Your task to perform on an android device: turn on location history Image 0: 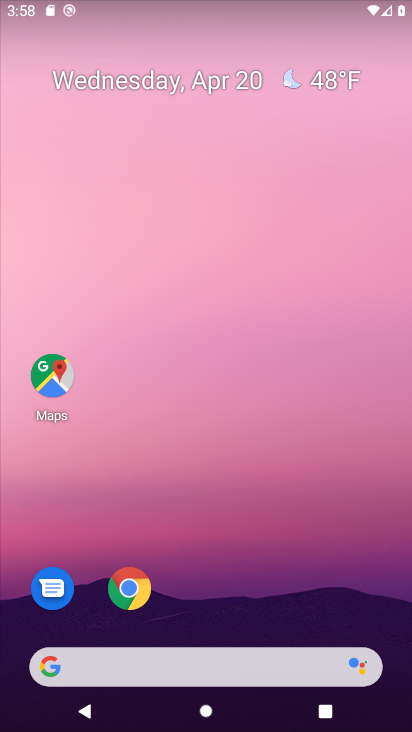
Step 0: drag from (329, 611) to (307, 211)
Your task to perform on an android device: turn on location history Image 1: 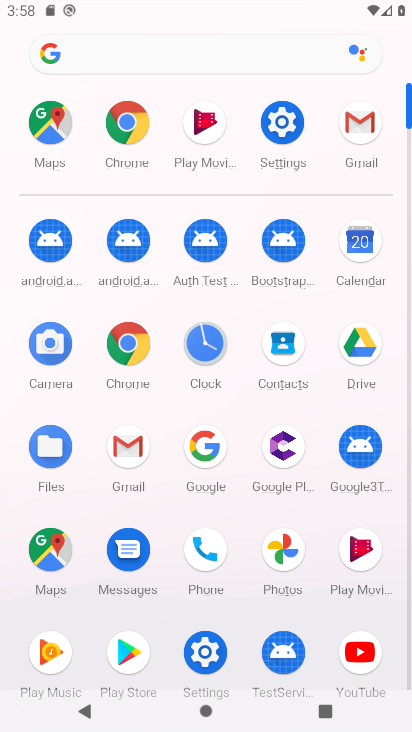
Step 1: click (282, 133)
Your task to perform on an android device: turn on location history Image 2: 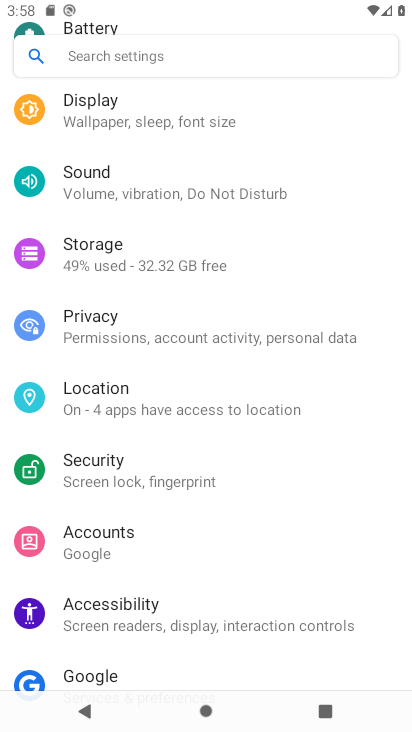
Step 2: drag from (365, 257) to (349, 383)
Your task to perform on an android device: turn on location history Image 3: 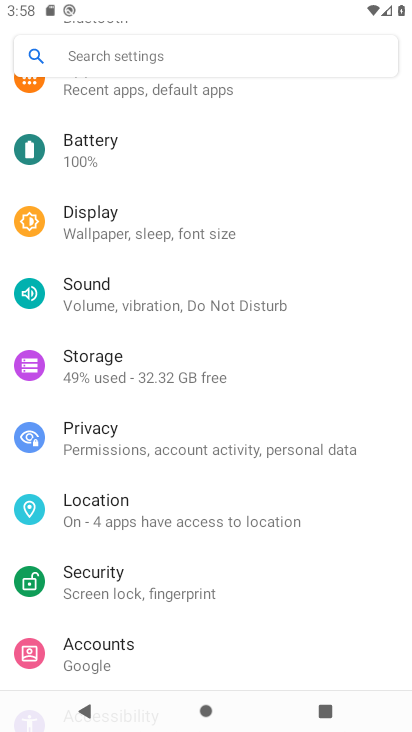
Step 3: drag from (357, 242) to (358, 371)
Your task to perform on an android device: turn on location history Image 4: 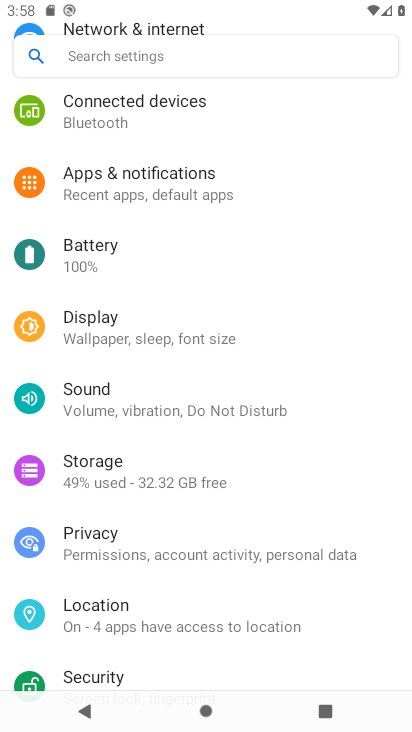
Step 4: drag from (348, 234) to (339, 368)
Your task to perform on an android device: turn on location history Image 5: 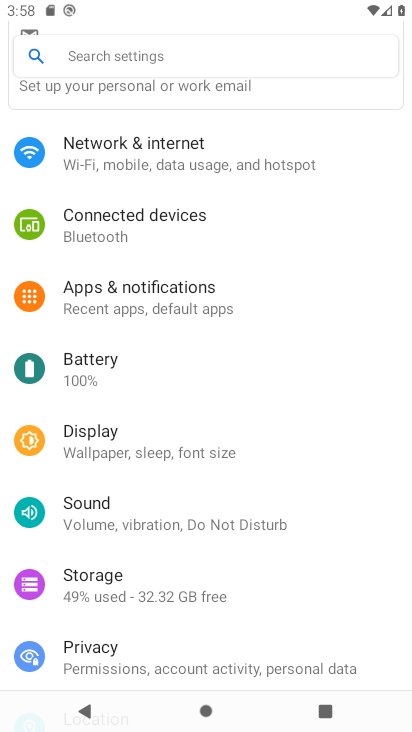
Step 5: drag from (348, 240) to (333, 435)
Your task to perform on an android device: turn on location history Image 6: 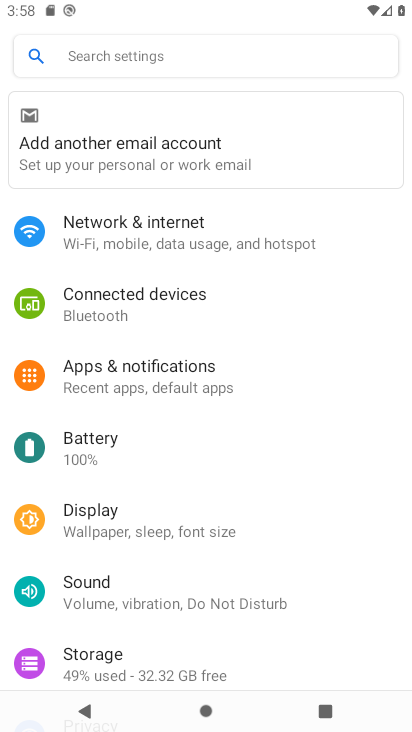
Step 6: drag from (332, 546) to (367, 408)
Your task to perform on an android device: turn on location history Image 7: 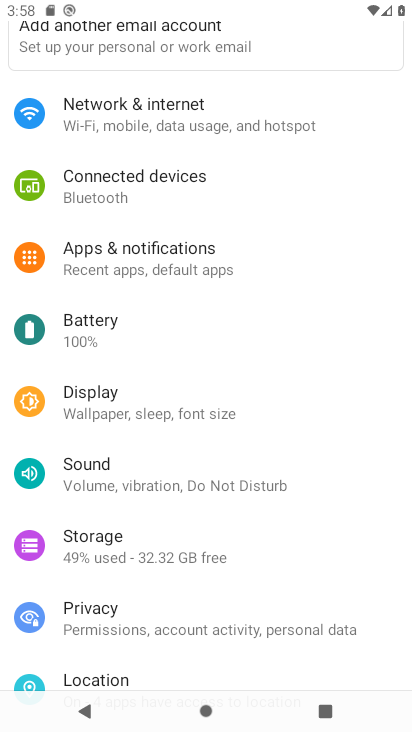
Step 7: drag from (342, 539) to (352, 377)
Your task to perform on an android device: turn on location history Image 8: 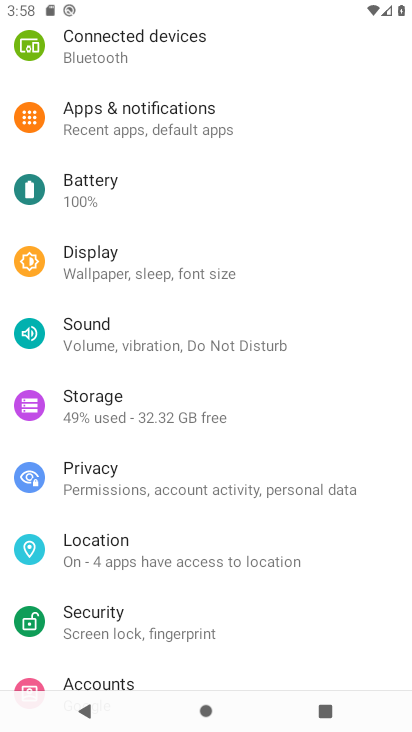
Step 8: drag from (331, 569) to (326, 425)
Your task to perform on an android device: turn on location history Image 9: 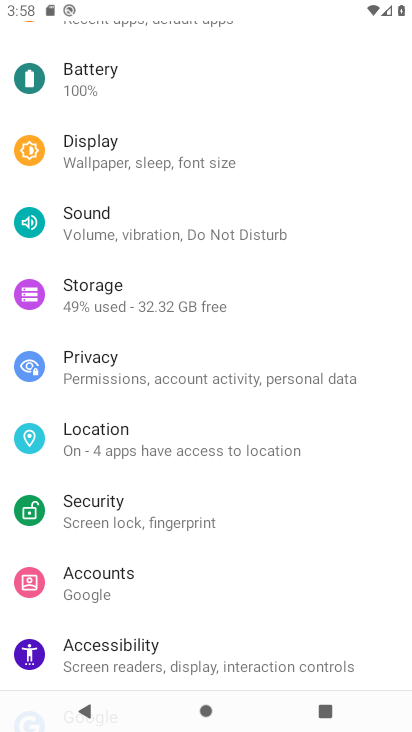
Step 9: drag from (325, 574) to (329, 455)
Your task to perform on an android device: turn on location history Image 10: 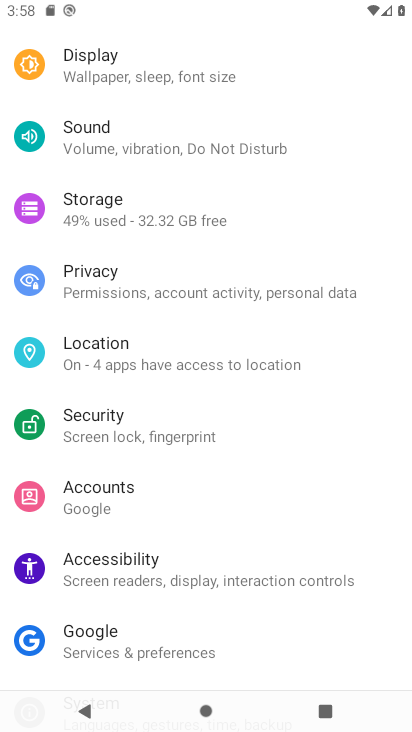
Step 10: drag from (306, 631) to (309, 496)
Your task to perform on an android device: turn on location history Image 11: 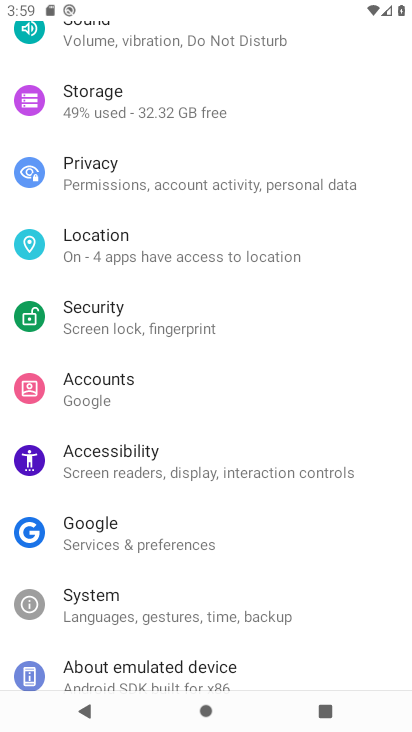
Step 11: click (193, 246)
Your task to perform on an android device: turn on location history Image 12: 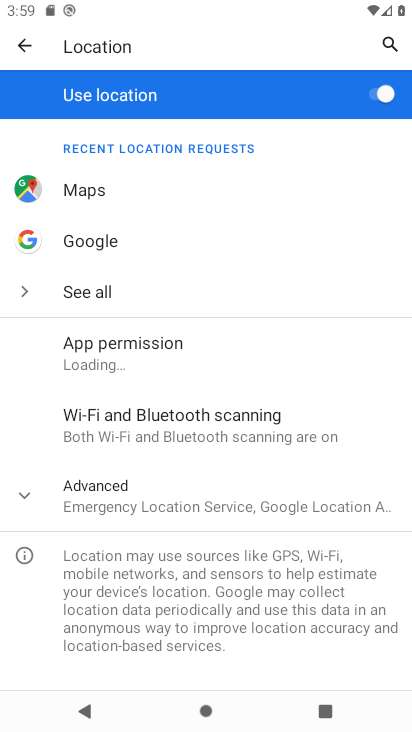
Step 12: click (255, 491)
Your task to perform on an android device: turn on location history Image 13: 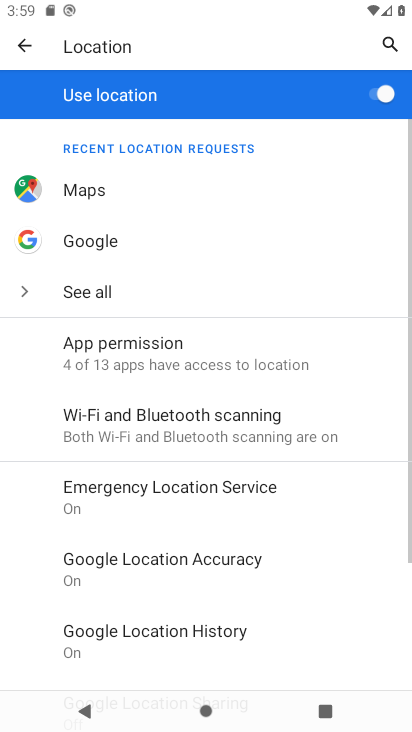
Step 13: task complete